Your task to perform on an android device: open sync settings in chrome Image 0: 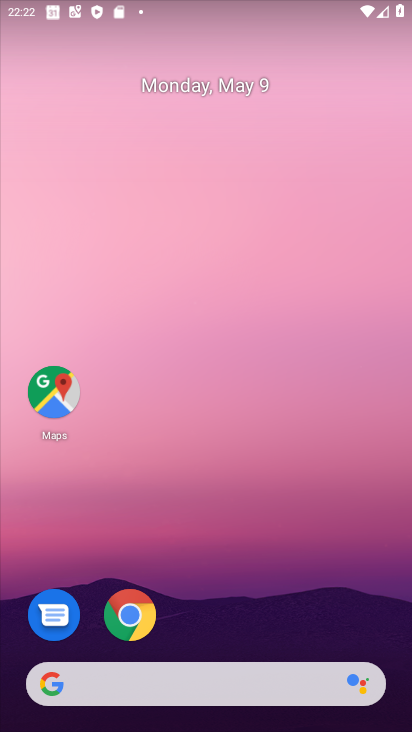
Step 0: click (132, 617)
Your task to perform on an android device: open sync settings in chrome Image 1: 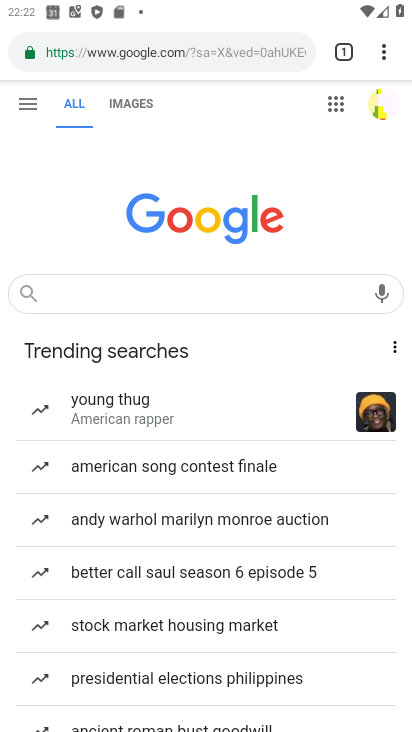
Step 1: click (385, 56)
Your task to perform on an android device: open sync settings in chrome Image 2: 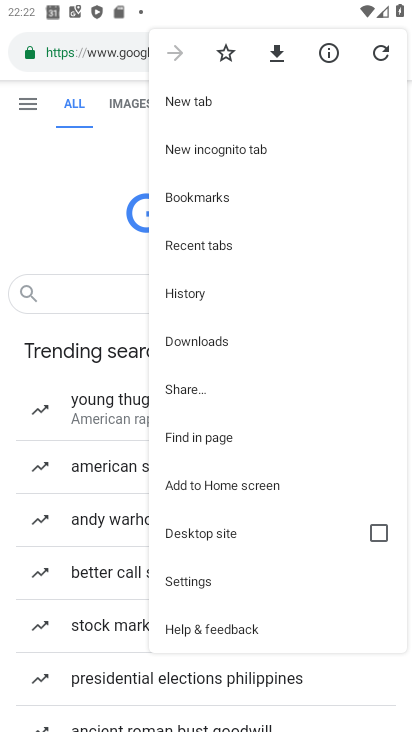
Step 2: click (209, 582)
Your task to perform on an android device: open sync settings in chrome Image 3: 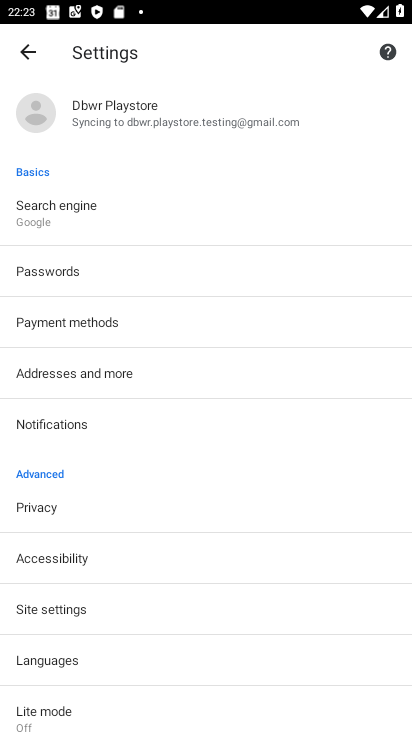
Step 3: click (171, 124)
Your task to perform on an android device: open sync settings in chrome Image 4: 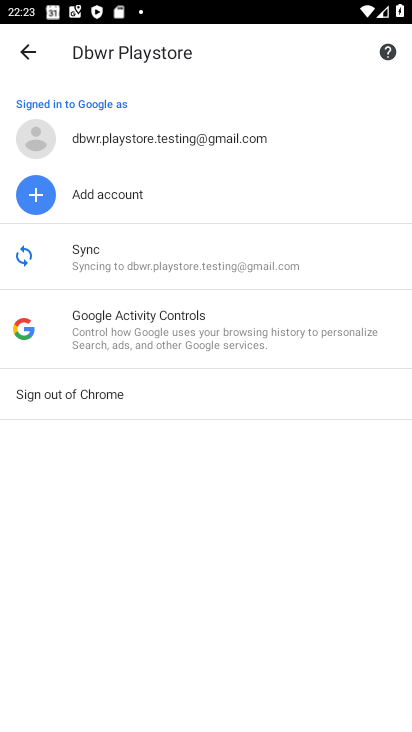
Step 4: click (180, 254)
Your task to perform on an android device: open sync settings in chrome Image 5: 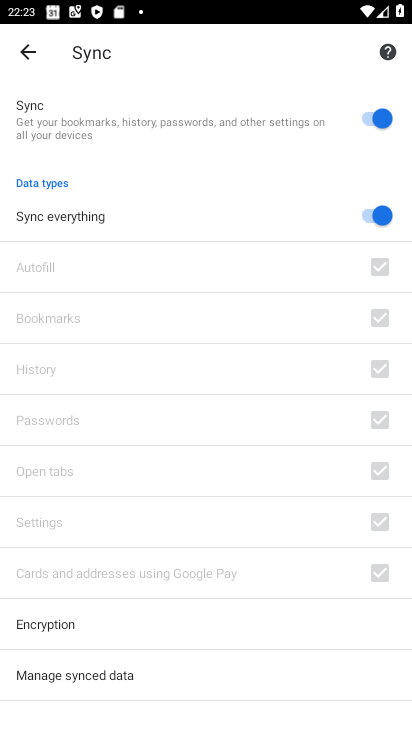
Step 5: task complete